Your task to perform on an android device: turn off translation in the chrome app Image 0: 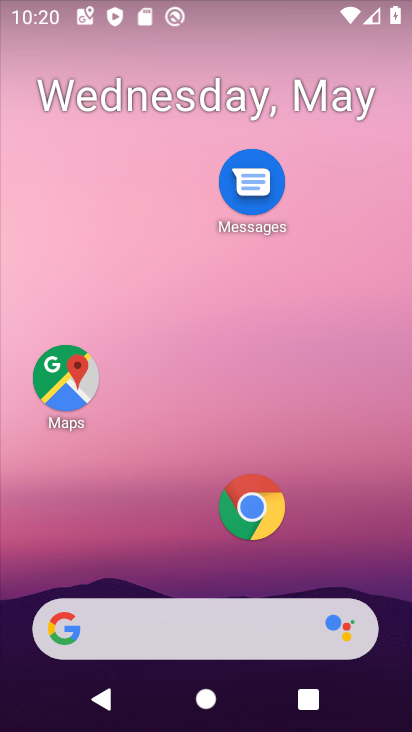
Step 0: click (241, 501)
Your task to perform on an android device: turn off translation in the chrome app Image 1: 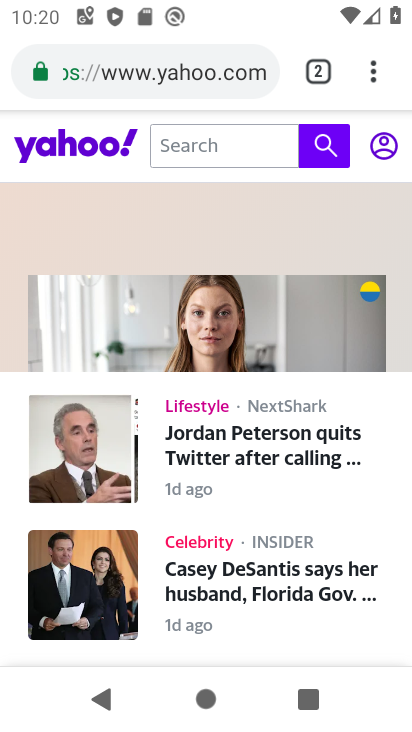
Step 1: click (383, 62)
Your task to perform on an android device: turn off translation in the chrome app Image 2: 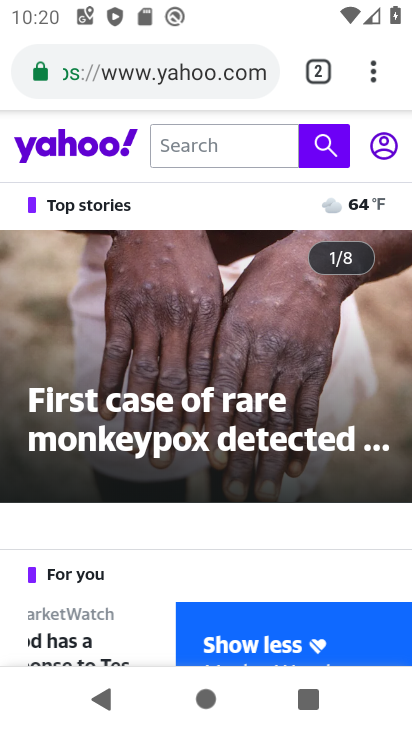
Step 2: click (372, 70)
Your task to perform on an android device: turn off translation in the chrome app Image 3: 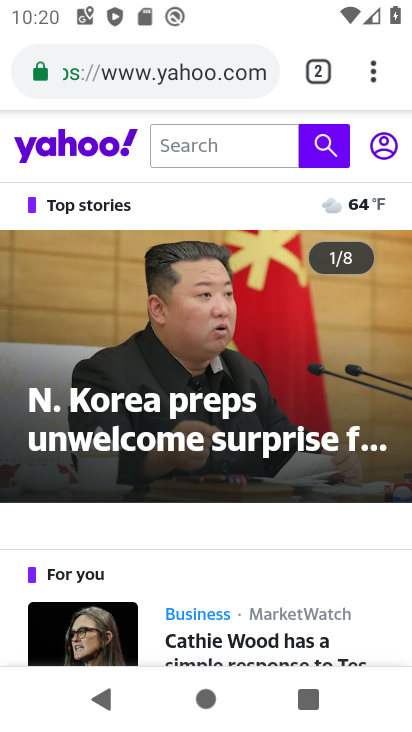
Step 3: click (372, 67)
Your task to perform on an android device: turn off translation in the chrome app Image 4: 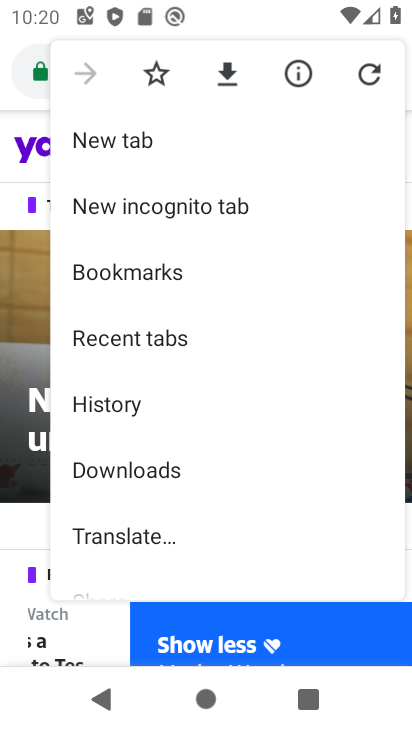
Step 4: drag from (180, 515) to (233, 121)
Your task to perform on an android device: turn off translation in the chrome app Image 5: 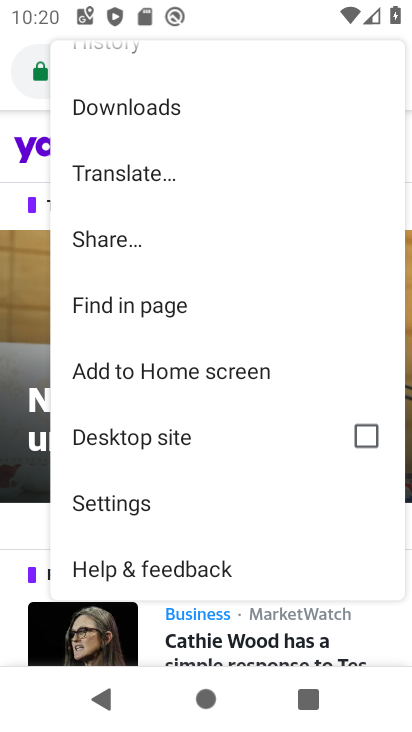
Step 5: click (166, 498)
Your task to perform on an android device: turn off translation in the chrome app Image 6: 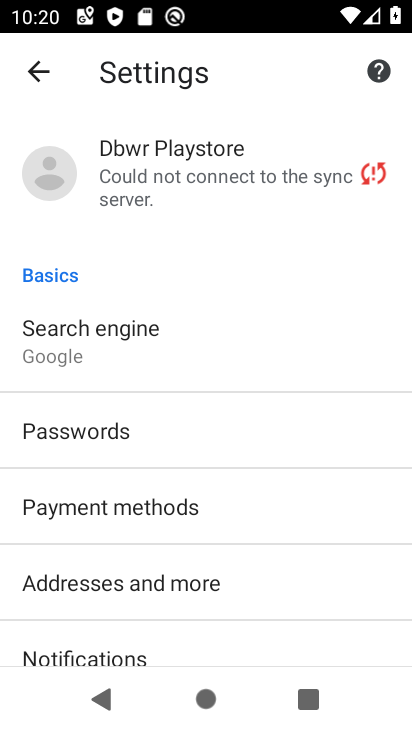
Step 6: drag from (166, 632) to (194, 301)
Your task to perform on an android device: turn off translation in the chrome app Image 7: 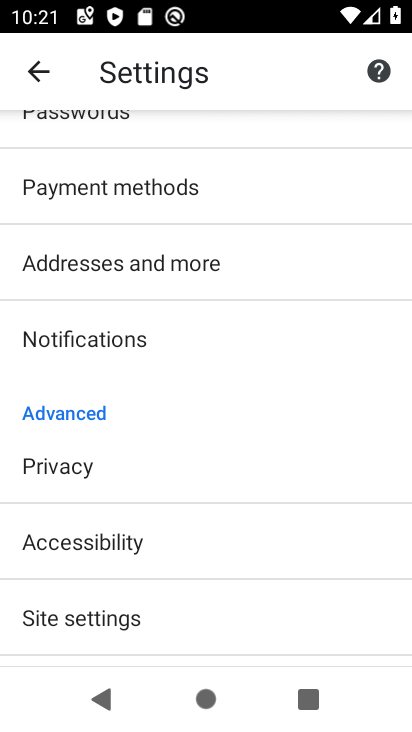
Step 7: drag from (161, 609) to (193, 320)
Your task to perform on an android device: turn off translation in the chrome app Image 8: 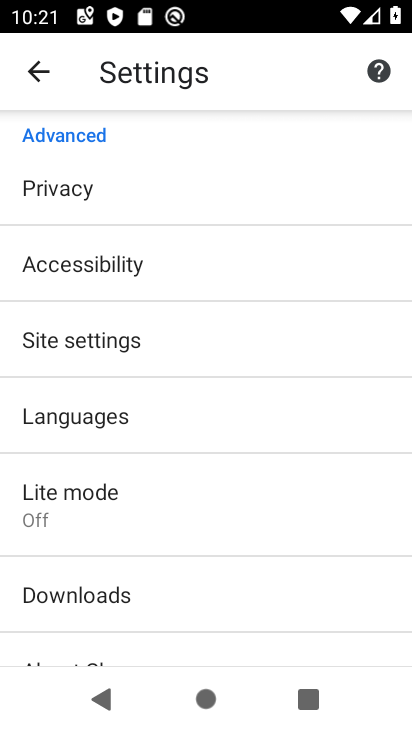
Step 8: click (135, 413)
Your task to perform on an android device: turn off translation in the chrome app Image 9: 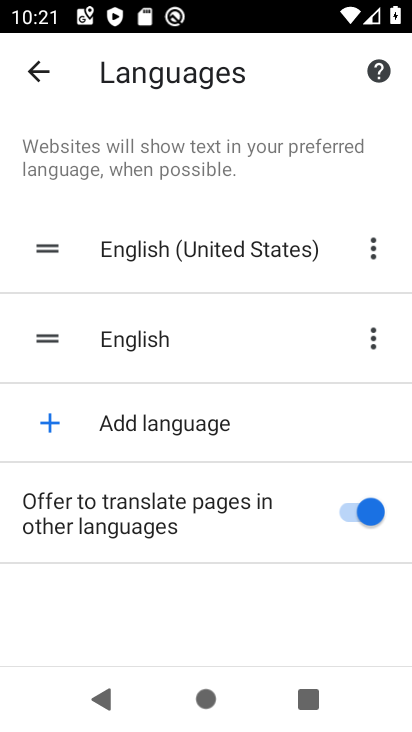
Step 9: click (341, 503)
Your task to perform on an android device: turn off translation in the chrome app Image 10: 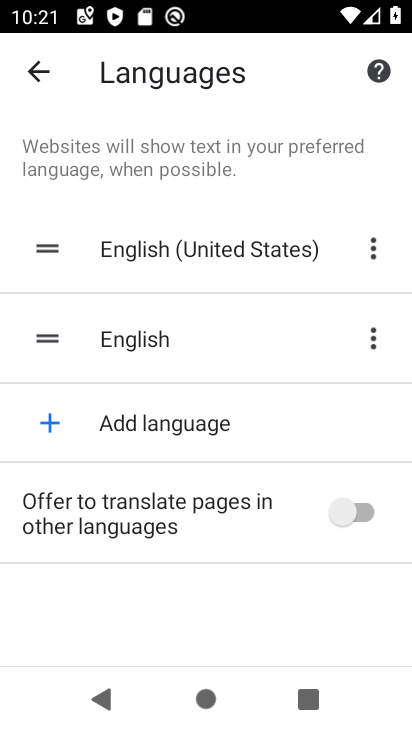
Step 10: task complete